Your task to perform on an android device: set the timer Image 0: 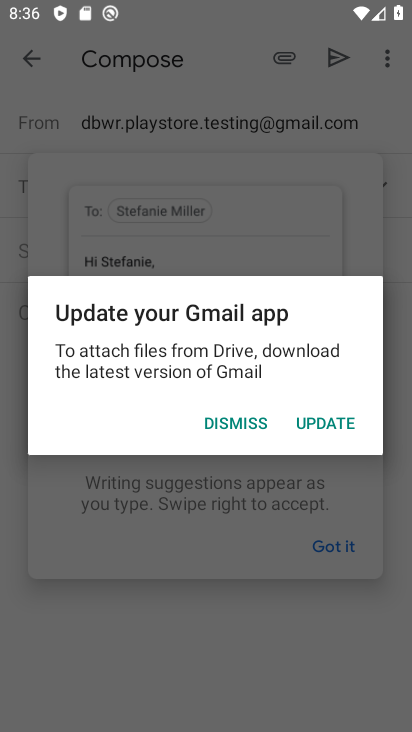
Step 0: press home button
Your task to perform on an android device: set the timer Image 1: 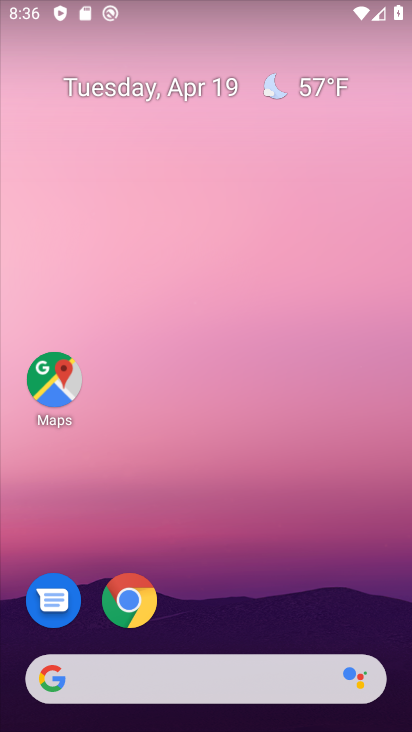
Step 1: drag from (357, 609) to (366, 180)
Your task to perform on an android device: set the timer Image 2: 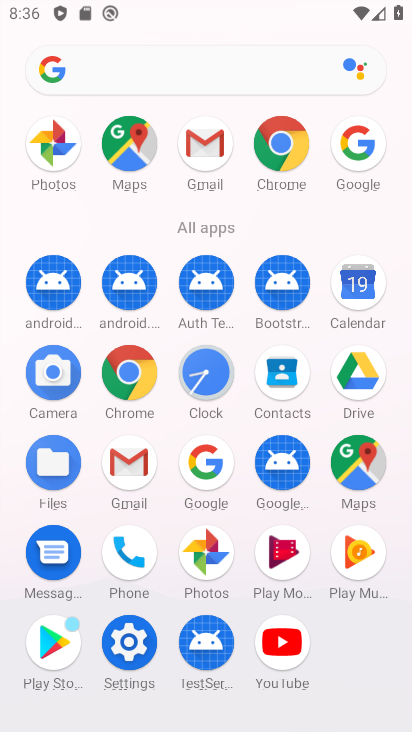
Step 2: click (205, 375)
Your task to perform on an android device: set the timer Image 3: 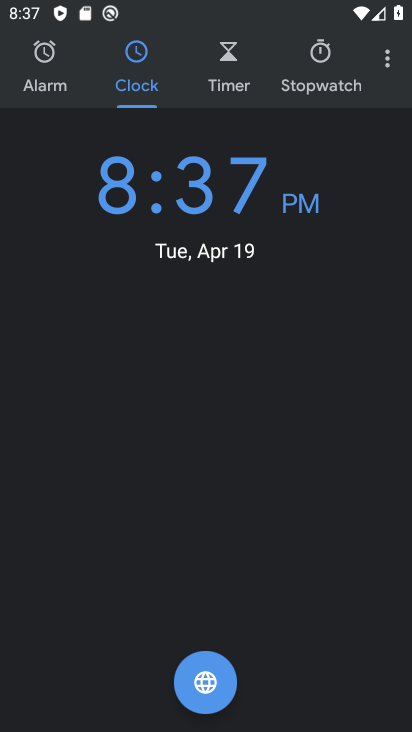
Step 3: click (228, 64)
Your task to perform on an android device: set the timer Image 4: 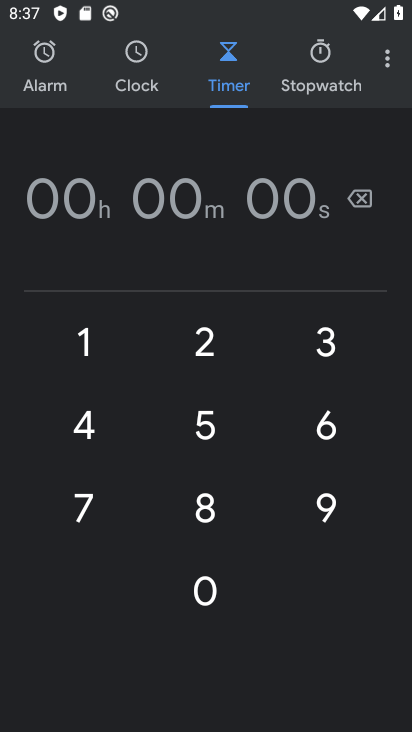
Step 4: click (197, 424)
Your task to perform on an android device: set the timer Image 5: 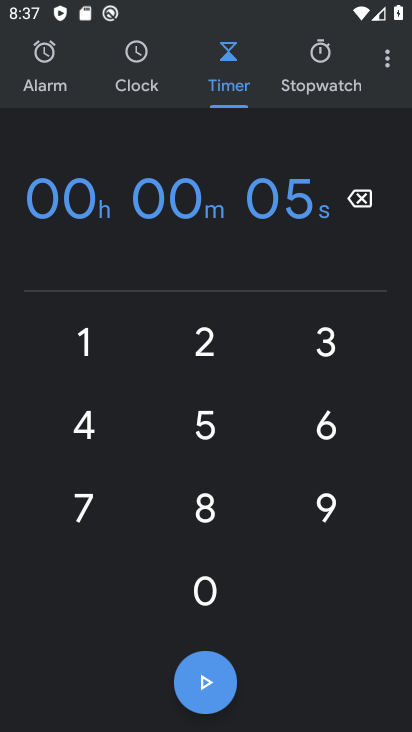
Step 5: click (206, 671)
Your task to perform on an android device: set the timer Image 6: 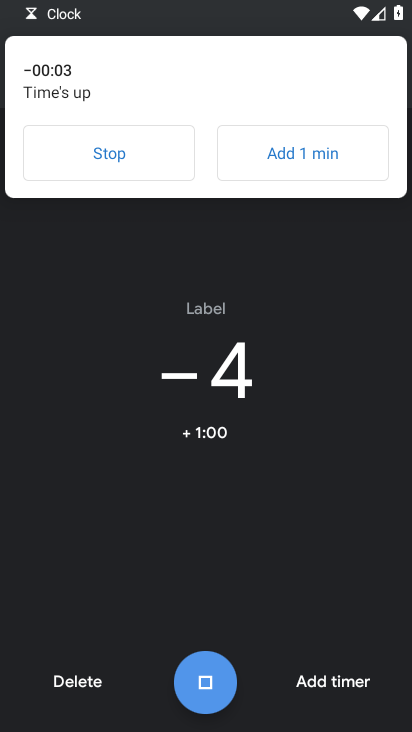
Step 6: task complete